Your task to perform on an android device: manage bookmarks in the chrome app Image 0: 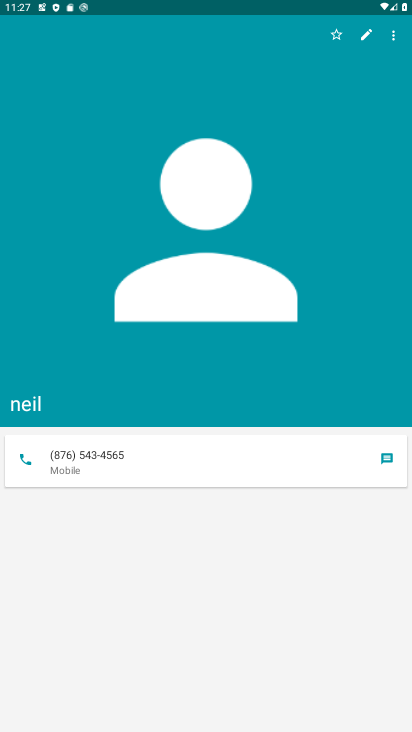
Step 0: press home button
Your task to perform on an android device: manage bookmarks in the chrome app Image 1: 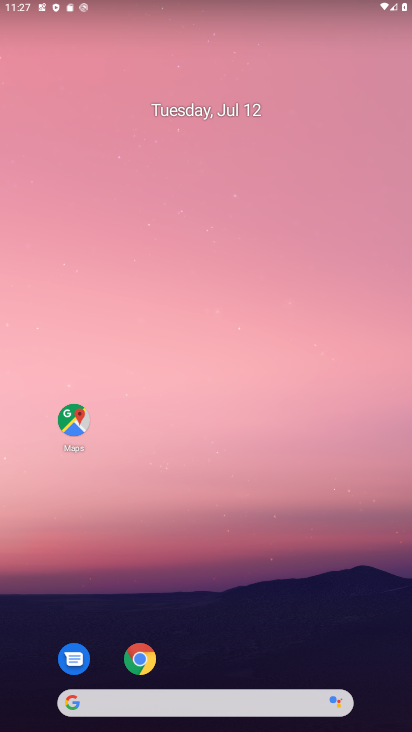
Step 1: drag from (234, 702) to (270, 122)
Your task to perform on an android device: manage bookmarks in the chrome app Image 2: 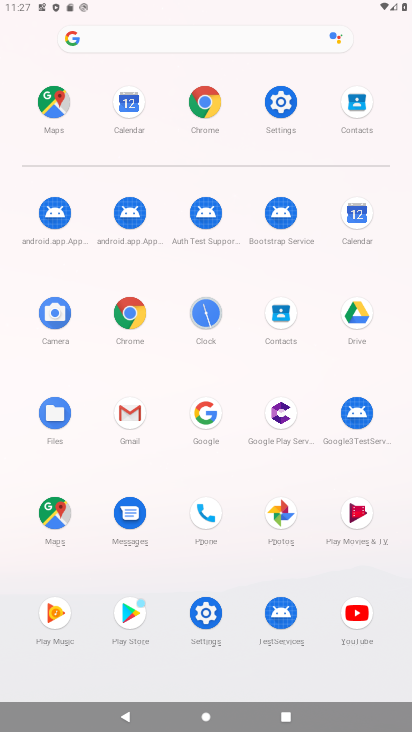
Step 2: click (136, 312)
Your task to perform on an android device: manage bookmarks in the chrome app Image 3: 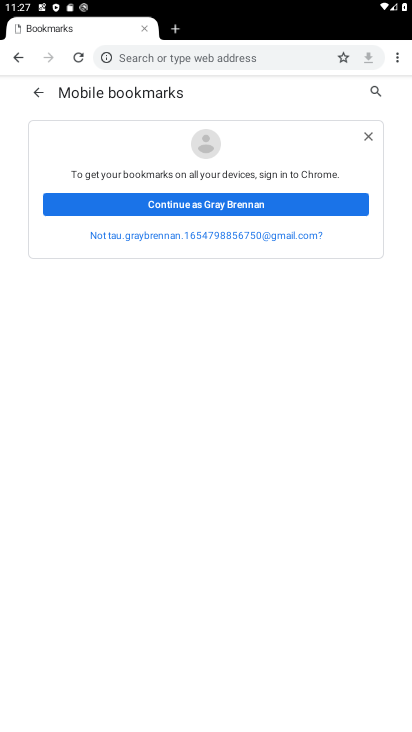
Step 3: task complete